Your task to perform on an android device: toggle location history Image 0: 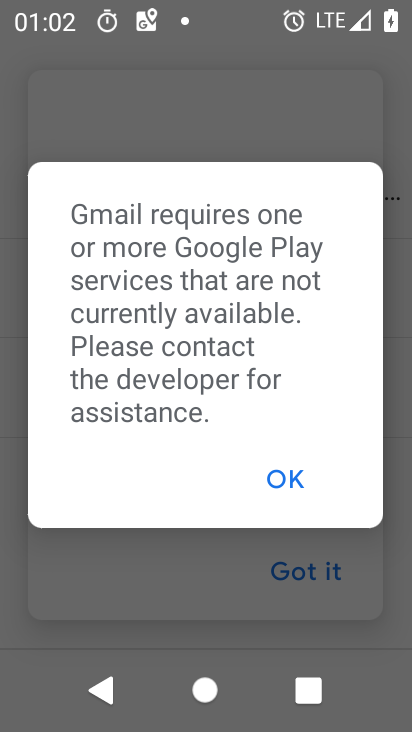
Step 0: press home button
Your task to perform on an android device: toggle location history Image 1: 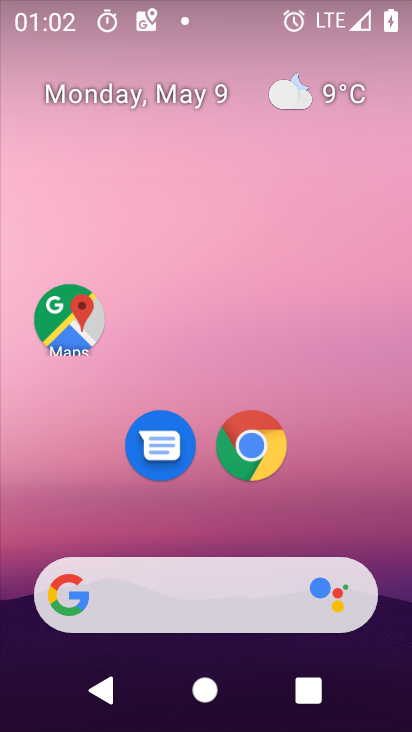
Step 1: click (75, 326)
Your task to perform on an android device: toggle location history Image 2: 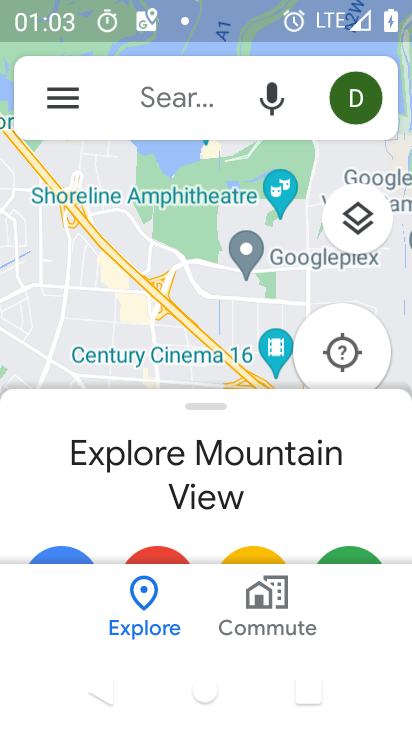
Step 2: click (61, 98)
Your task to perform on an android device: toggle location history Image 3: 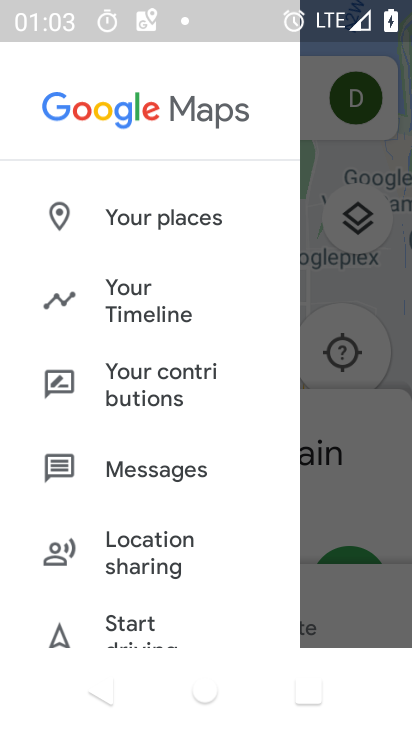
Step 3: click (132, 316)
Your task to perform on an android device: toggle location history Image 4: 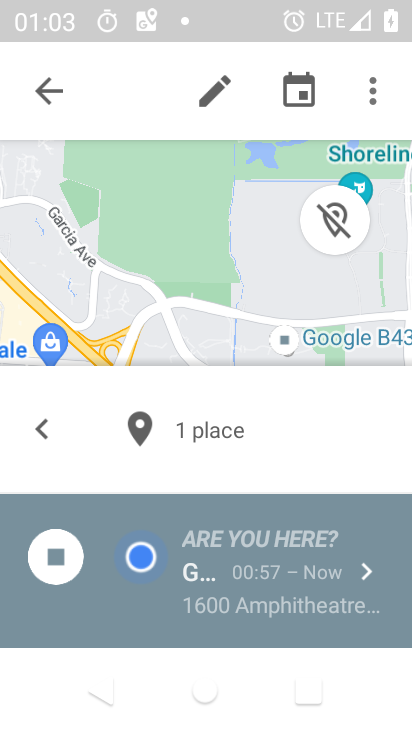
Step 4: click (368, 93)
Your task to perform on an android device: toggle location history Image 5: 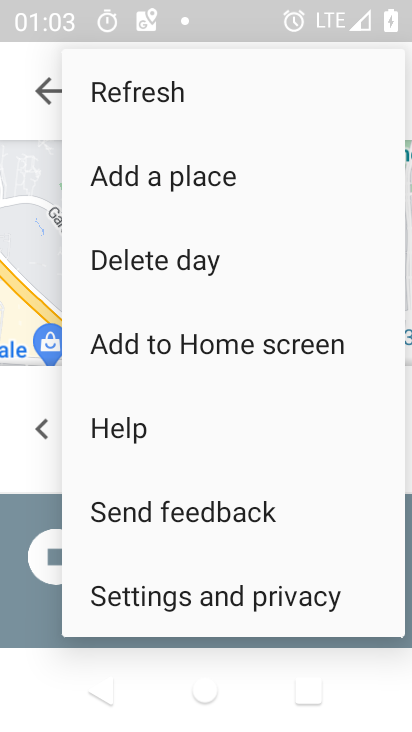
Step 5: click (165, 597)
Your task to perform on an android device: toggle location history Image 6: 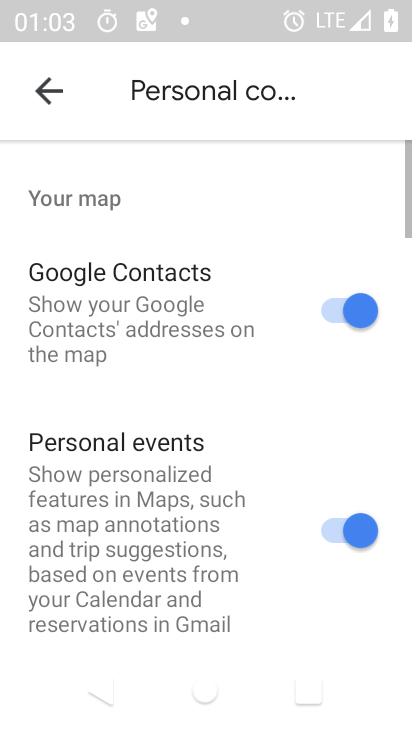
Step 6: drag from (165, 597) to (132, 190)
Your task to perform on an android device: toggle location history Image 7: 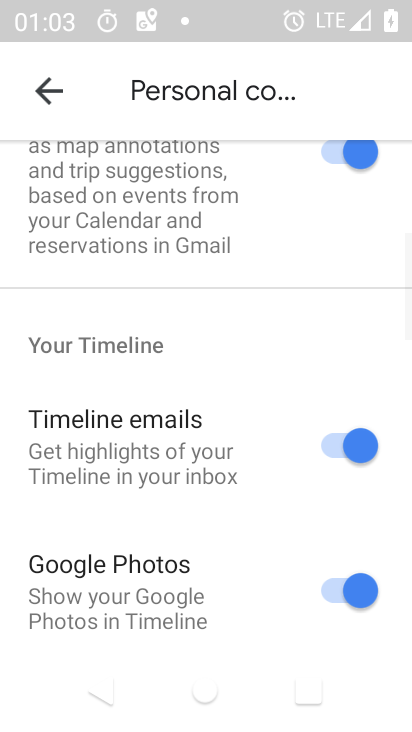
Step 7: drag from (107, 518) to (106, 213)
Your task to perform on an android device: toggle location history Image 8: 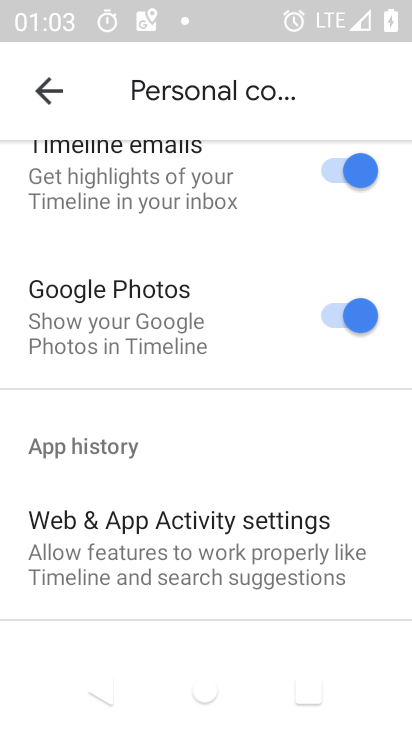
Step 8: drag from (111, 557) to (125, 181)
Your task to perform on an android device: toggle location history Image 9: 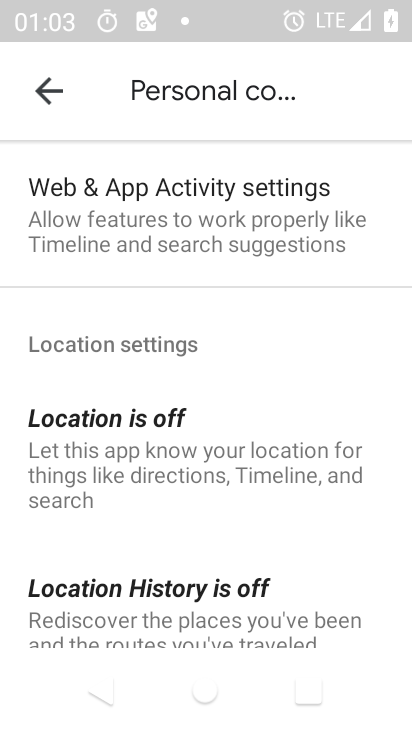
Step 9: drag from (119, 480) to (130, 232)
Your task to perform on an android device: toggle location history Image 10: 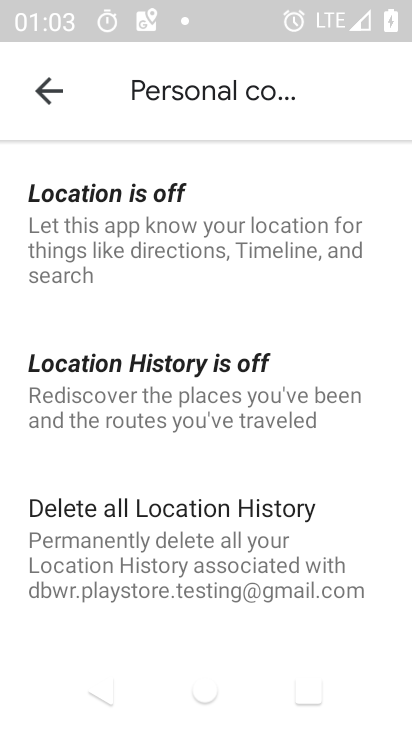
Step 10: click (133, 396)
Your task to perform on an android device: toggle location history Image 11: 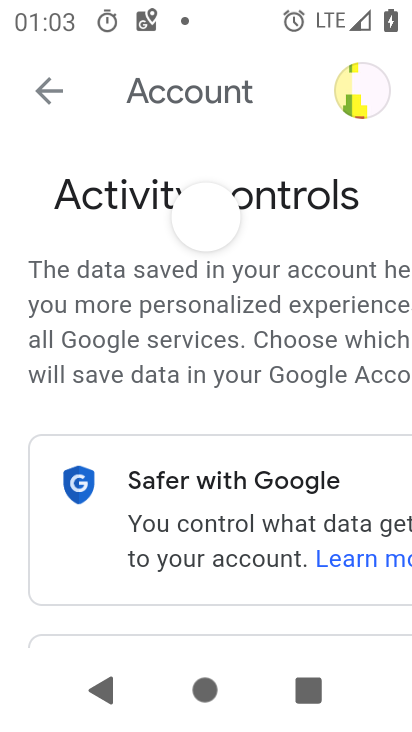
Step 11: drag from (231, 513) to (201, 198)
Your task to perform on an android device: toggle location history Image 12: 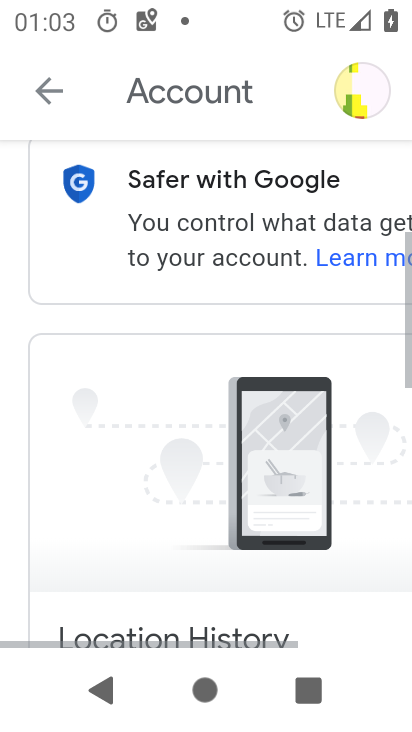
Step 12: click (164, 239)
Your task to perform on an android device: toggle location history Image 13: 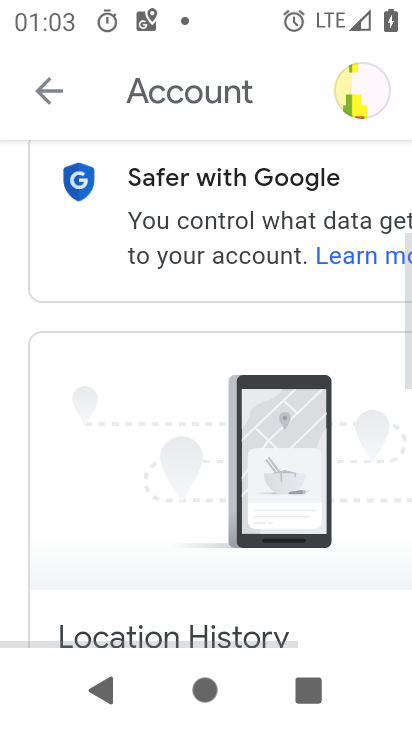
Step 13: drag from (212, 464) to (188, 226)
Your task to perform on an android device: toggle location history Image 14: 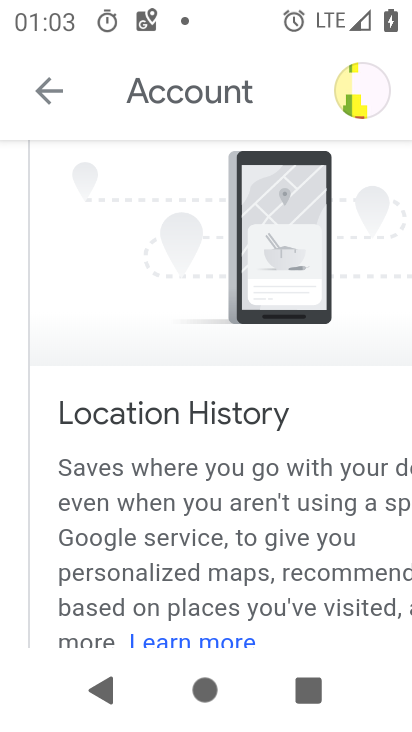
Step 14: drag from (205, 528) to (184, 168)
Your task to perform on an android device: toggle location history Image 15: 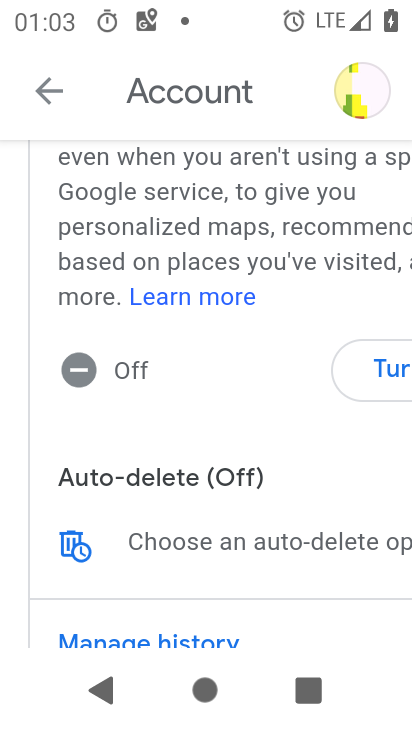
Step 15: click (378, 373)
Your task to perform on an android device: toggle location history Image 16: 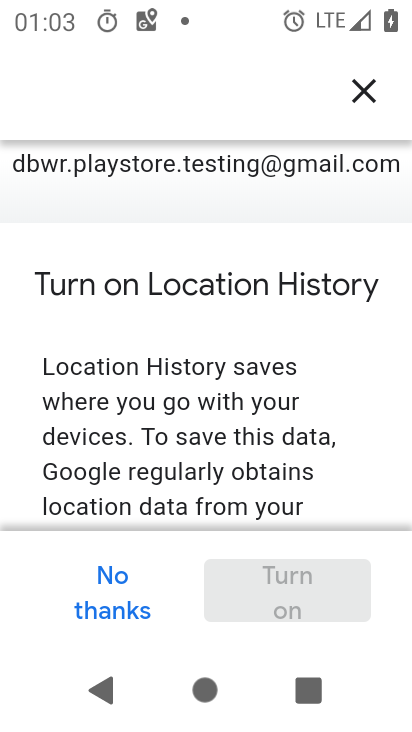
Step 16: drag from (218, 472) to (192, 126)
Your task to perform on an android device: toggle location history Image 17: 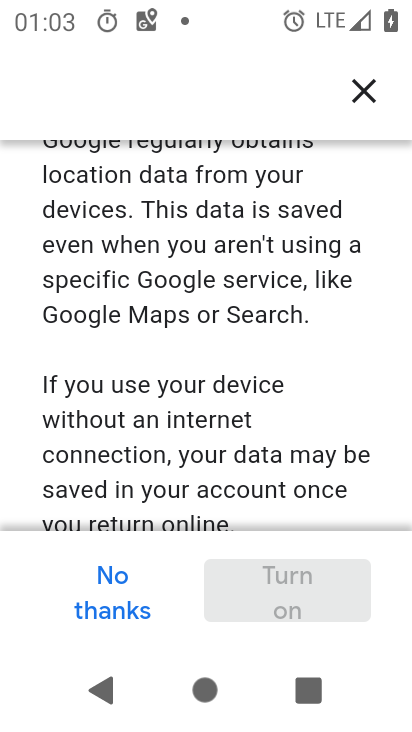
Step 17: drag from (183, 424) to (169, 138)
Your task to perform on an android device: toggle location history Image 18: 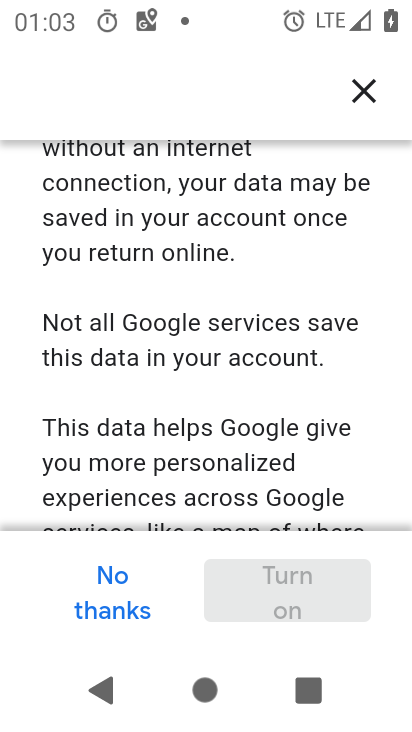
Step 18: drag from (230, 479) to (206, 136)
Your task to perform on an android device: toggle location history Image 19: 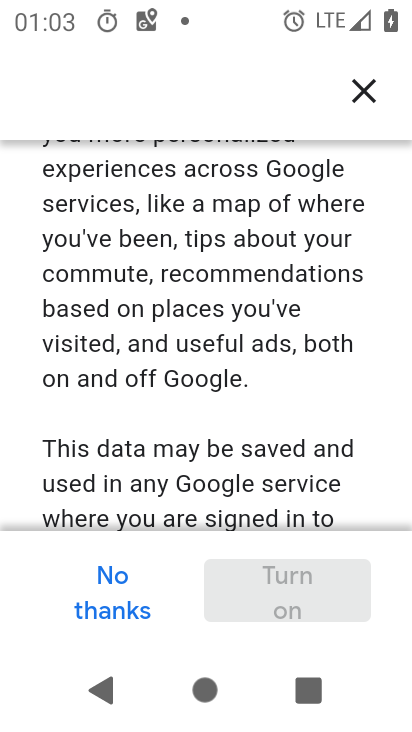
Step 19: drag from (199, 466) to (184, 171)
Your task to perform on an android device: toggle location history Image 20: 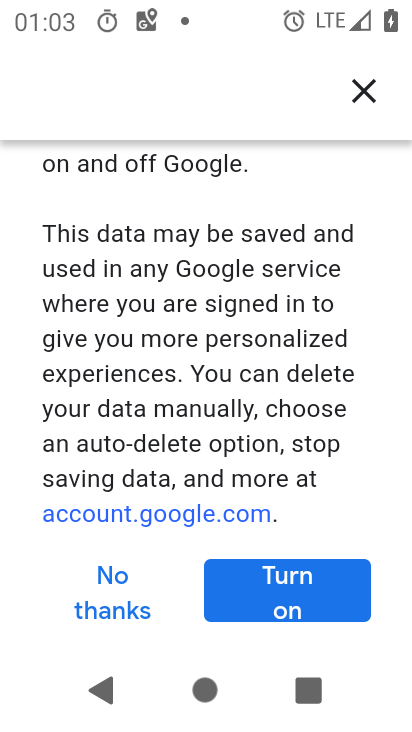
Step 20: drag from (184, 427) to (195, 206)
Your task to perform on an android device: toggle location history Image 21: 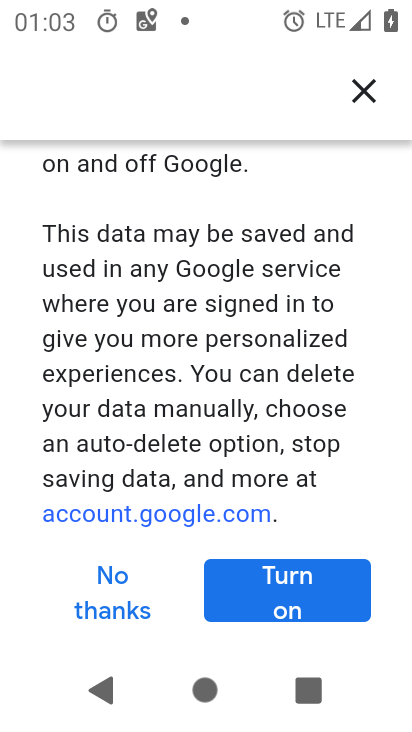
Step 21: click (292, 569)
Your task to perform on an android device: toggle location history Image 22: 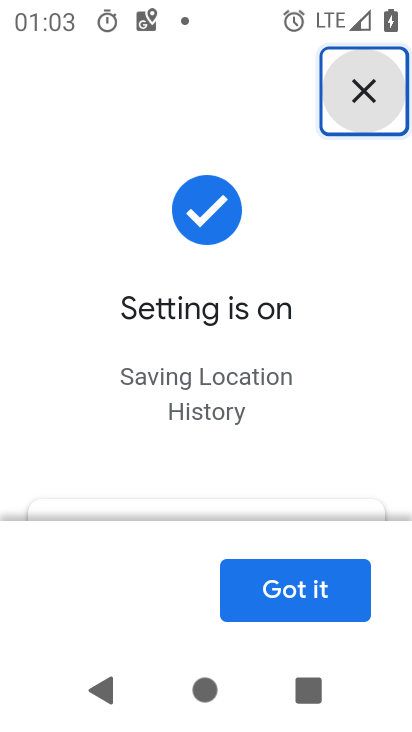
Step 22: click (290, 597)
Your task to perform on an android device: toggle location history Image 23: 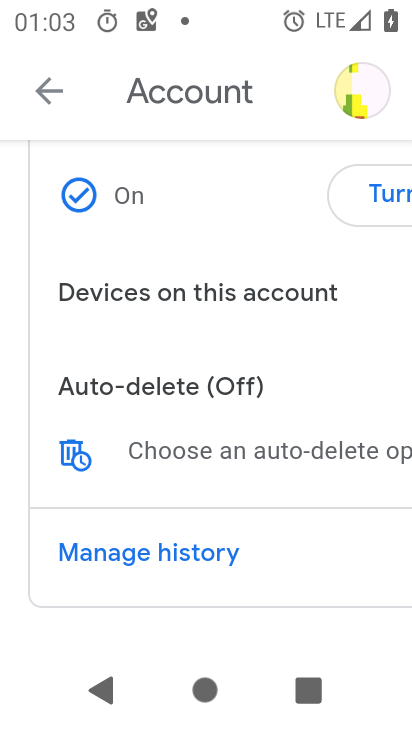
Step 23: task complete